Your task to perform on an android device: Open settings Image 0: 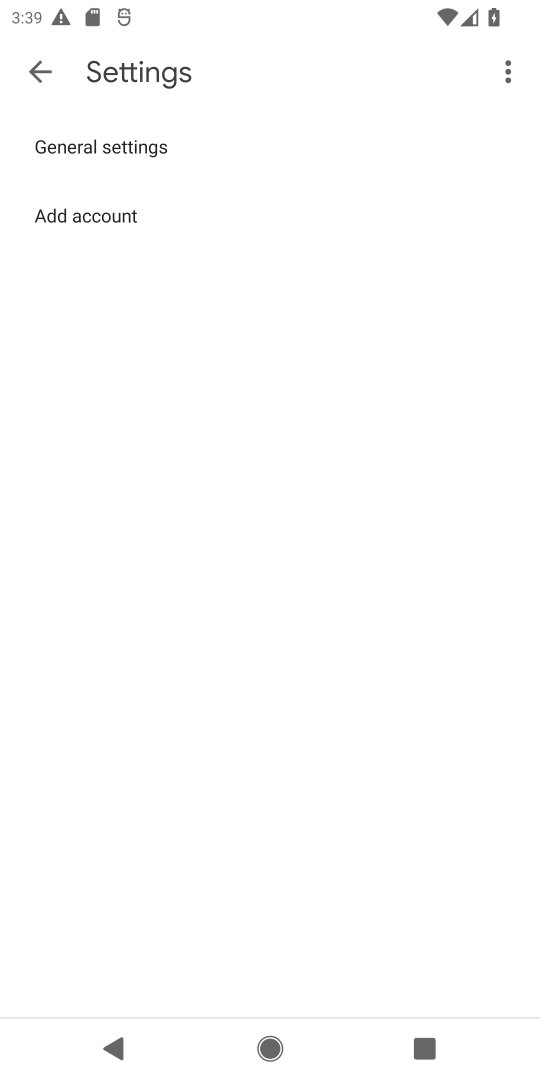
Step 0: press home button
Your task to perform on an android device: Open settings Image 1: 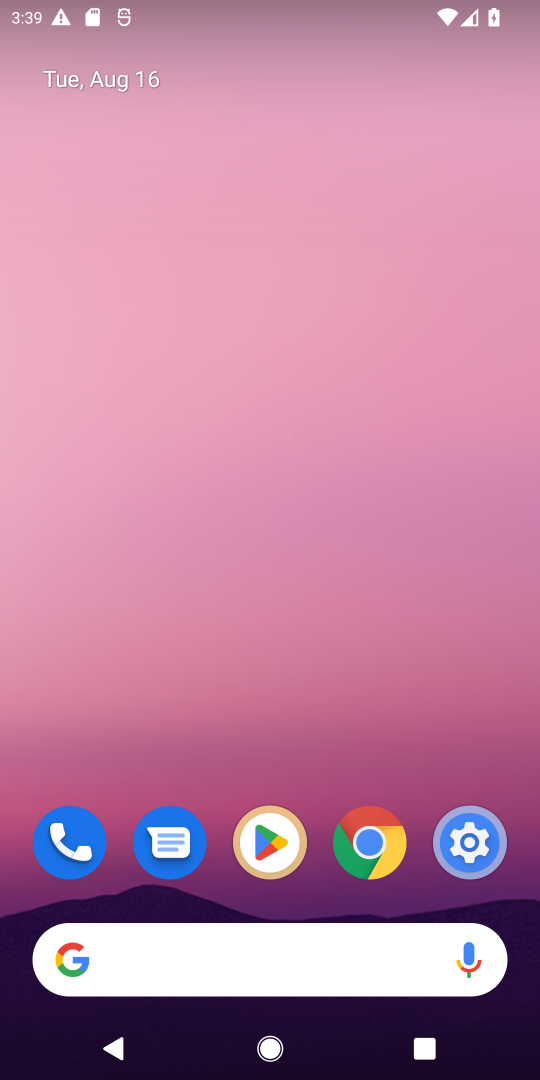
Step 1: drag from (346, 793) to (402, 60)
Your task to perform on an android device: Open settings Image 2: 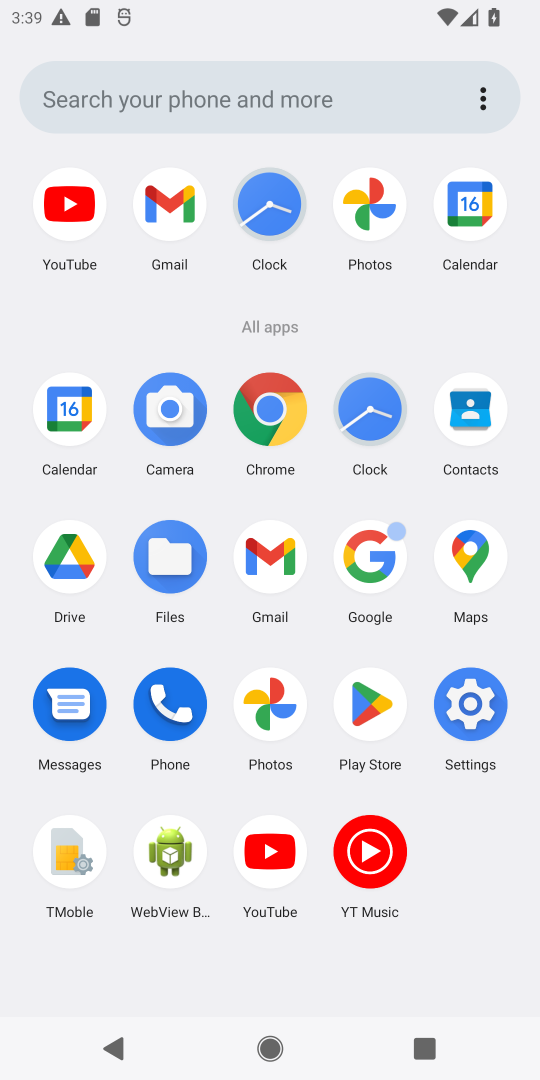
Step 2: click (461, 702)
Your task to perform on an android device: Open settings Image 3: 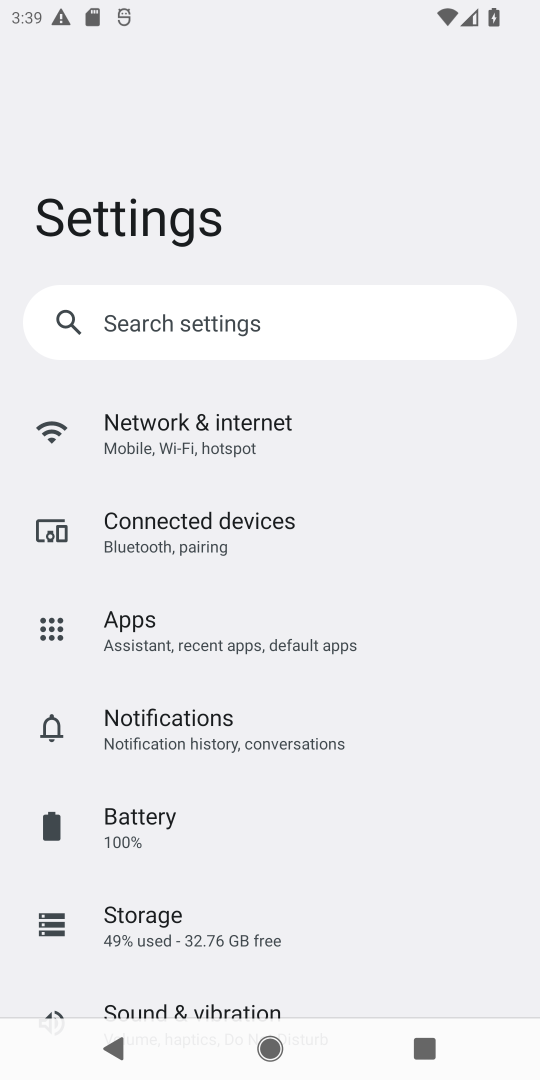
Step 3: task complete